Your task to perform on an android device: check storage Image 0: 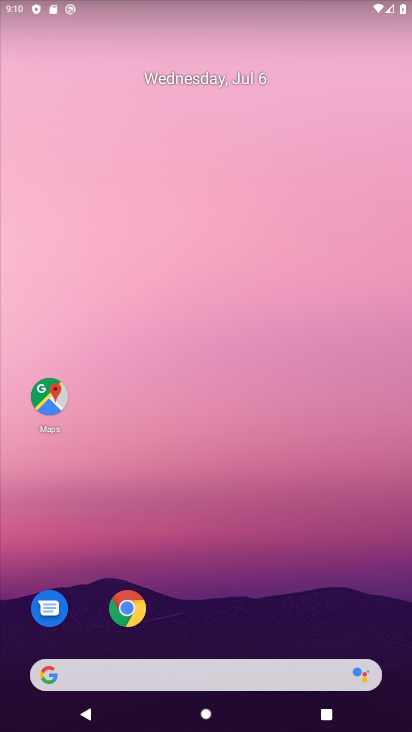
Step 0: drag from (232, 681) to (215, 19)
Your task to perform on an android device: check storage Image 1: 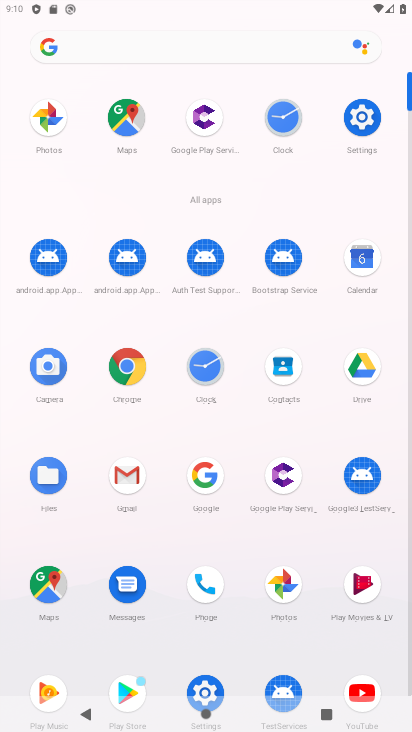
Step 1: click (364, 119)
Your task to perform on an android device: check storage Image 2: 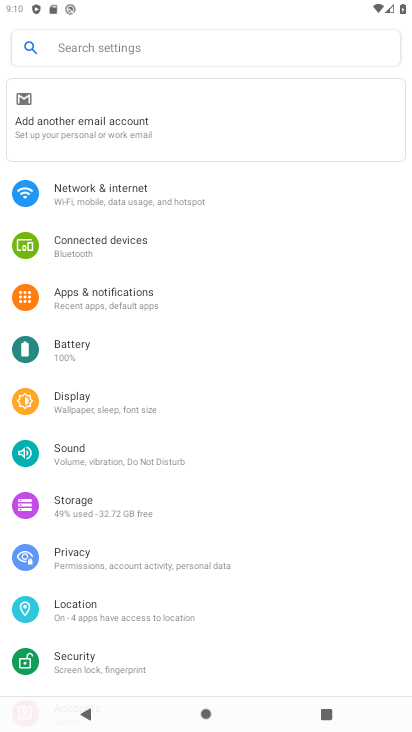
Step 2: click (106, 511)
Your task to perform on an android device: check storage Image 3: 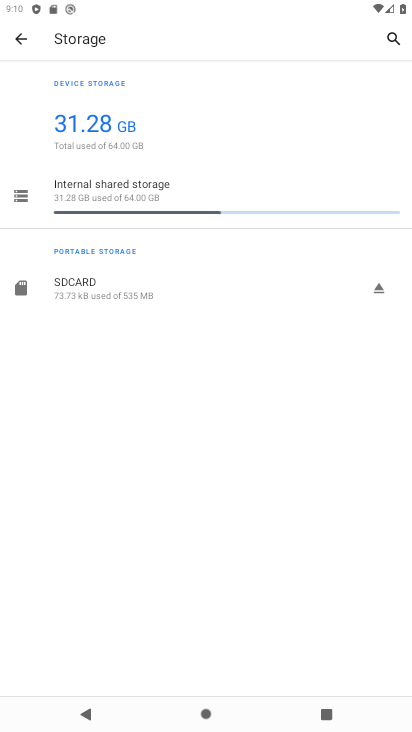
Step 3: task complete